Your task to perform on an android device: Open the phone app and click the voicemail tab. Image 0: 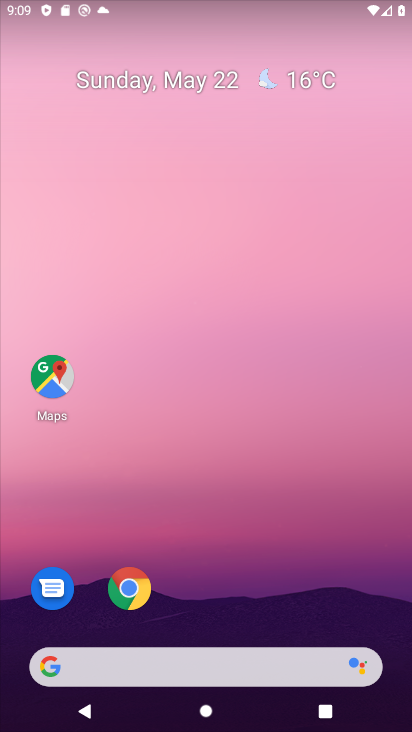
Step 0: drag from (212, 618) to (211, 198)
Your task to perform on an android device: Open the phone app and click the voicemail tab. Image 1: 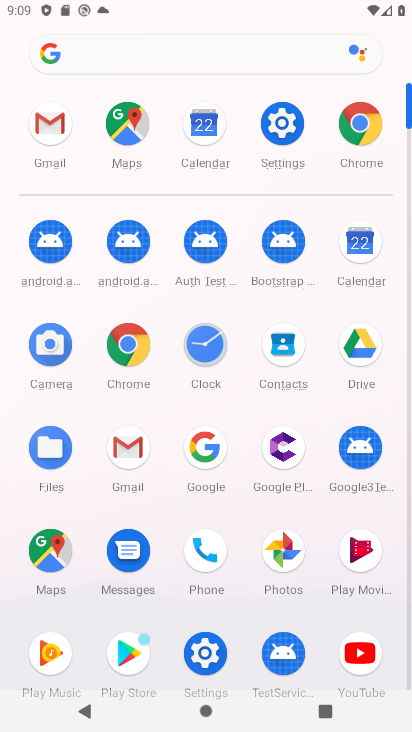
Step 1: click (194, 566)
Your task to perform on an android device: Open the phone app and click the voicemail tab. Image 2: 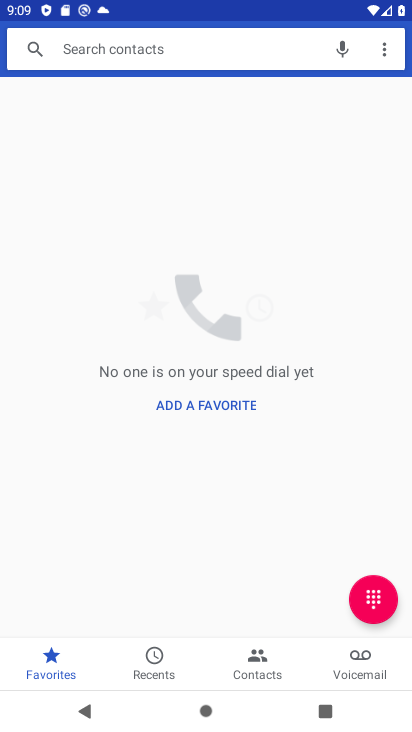
Step 2: click (358, 669)
Your task to perform on an android device: Open the phone app and click the voicemail tab. Image 3: 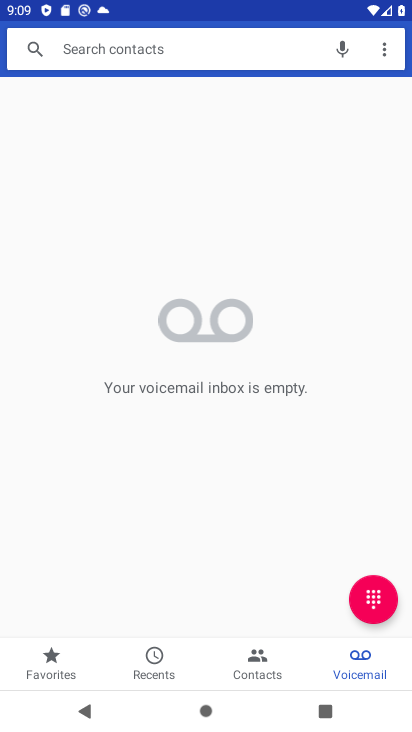
Step 3: task complete